Your task to perform on an android device: Open Google Maps Image 0: 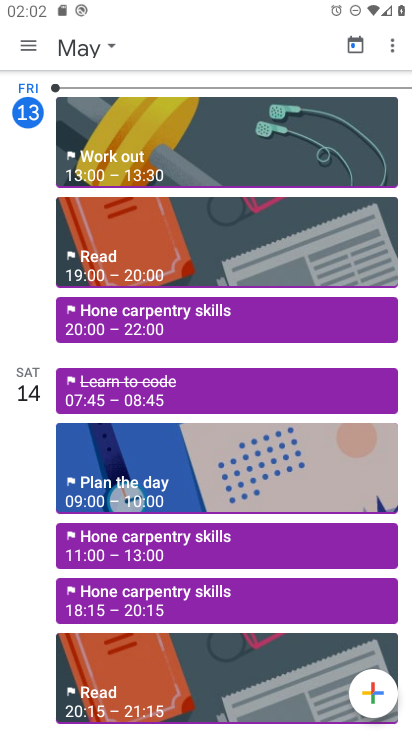
Step 0: press home button
Your task to perform on an android device: Open Google Maps Image 1: 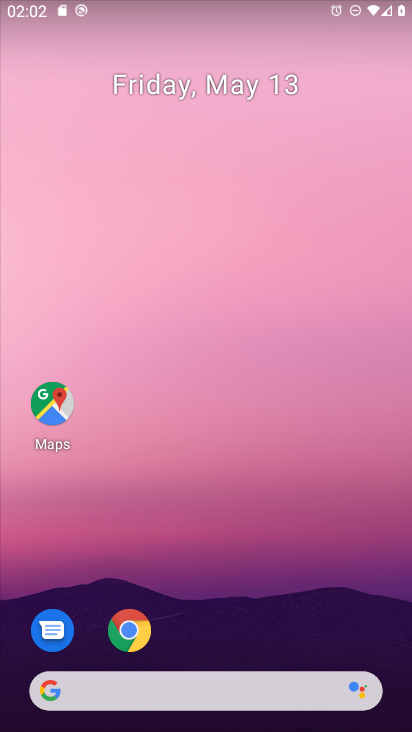
Step 1: drag from (236, 690) to (343, 176)
Your task to perform on an android device: Open Google Maps Image 2: 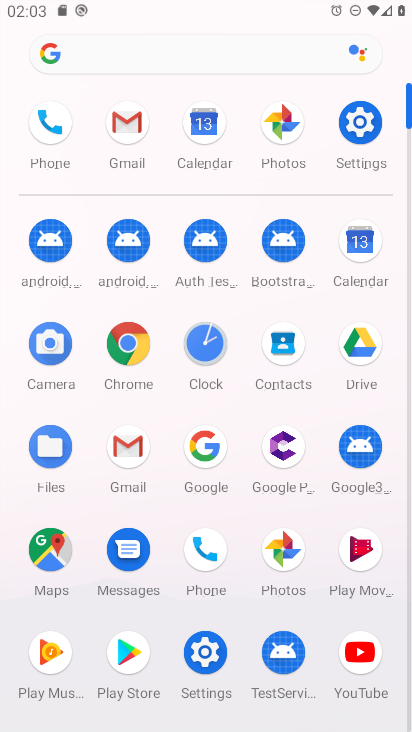
Step 2: click (65, 536)
Your task to perform on an android device: Open Google Maps Image 3: 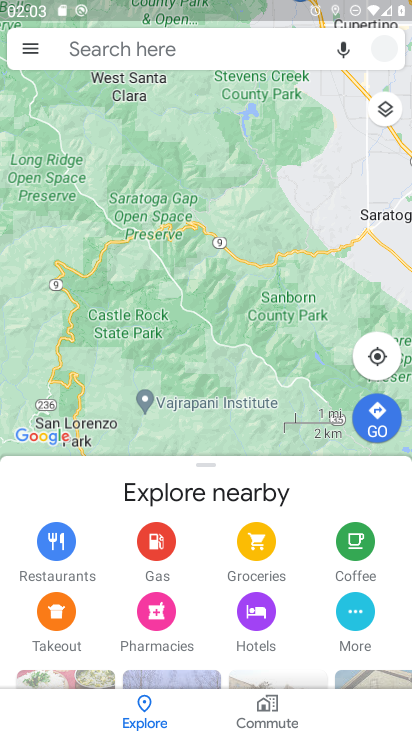
Step 3: click (364, 355)
Your task to perform on an android device: Open Google Maps Image 4: 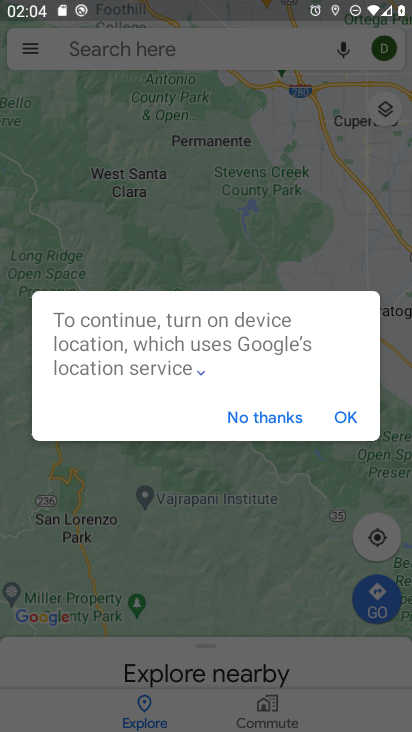
Step 4: click (266, 419)
Your task to perform on an android device: Open Google Maps Image 5: 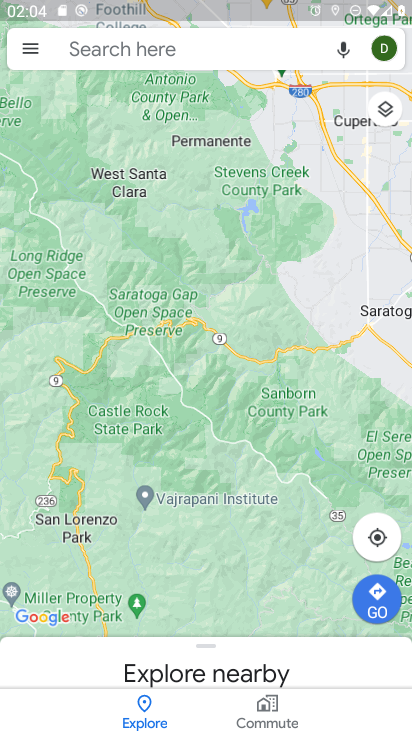
Step 5: task complete